Your task to perform on an android device: What's the weather going to be this weekend? Image 0: 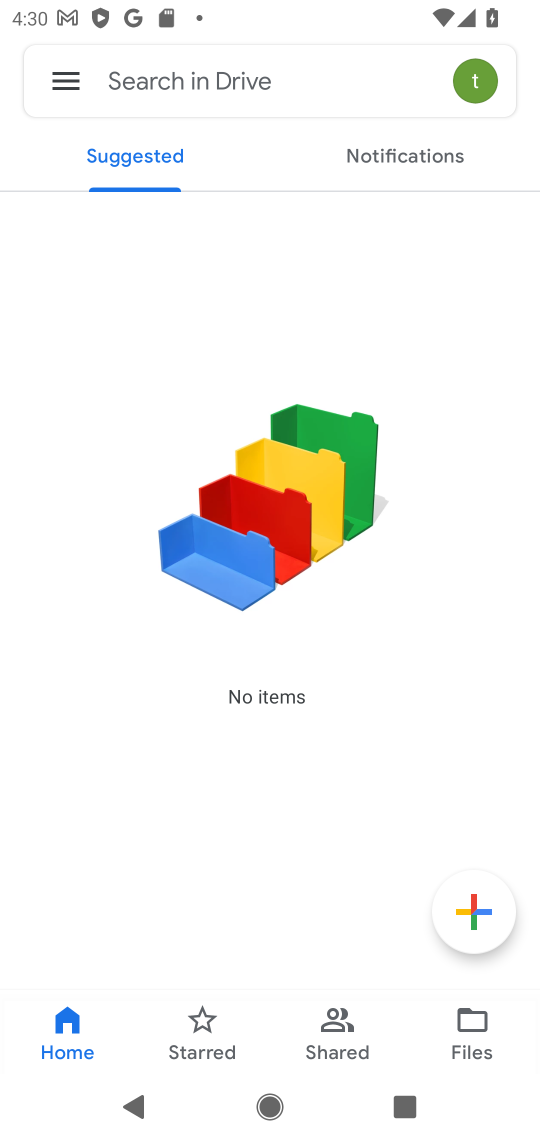
Step 0: press home button
Your task to perform on an android device: What's the weather going to be this weekend? Image 1: 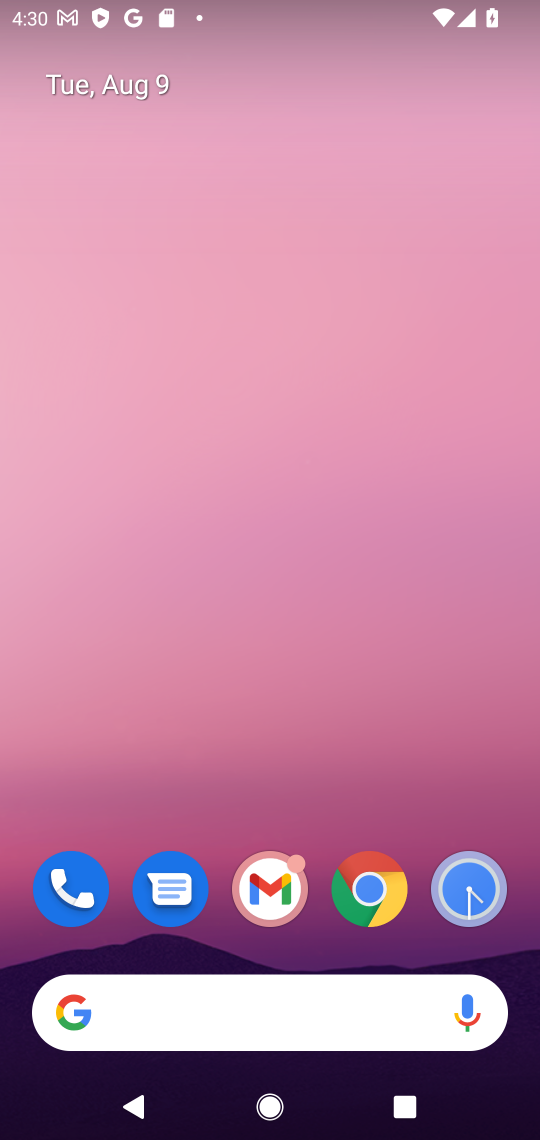
Step 1: click (200, 1013)
Your task to perform on an android device: What's the weather going to be this weekend? Image 2: 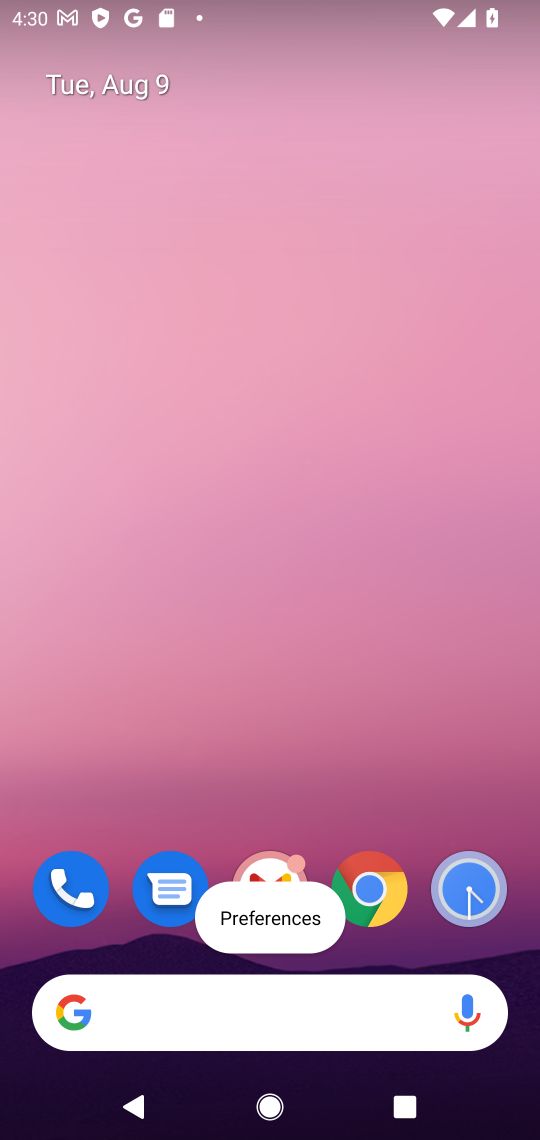
Step 2: click (204, 1021)
Your task to perform on an android device: What's the weather going to be this weekend? Image 3: 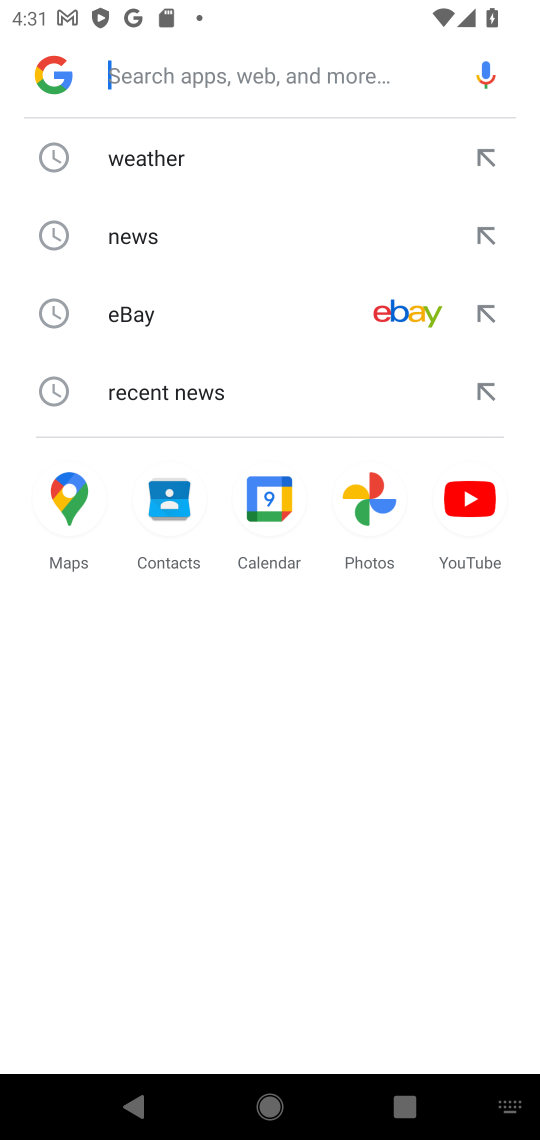
Step 3: click (176, 154)
Your task to perform on an android device: What's the weather going to be this weekend? Image 4: 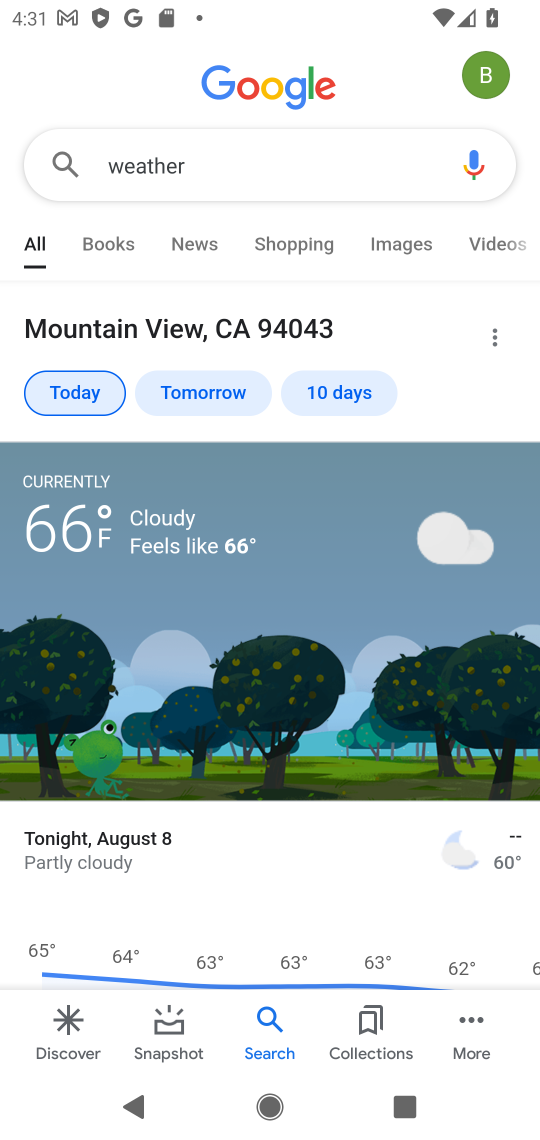
Step 4: click (325, 391)
Your task to perform on an android device: What's the weather going to be this weekend? Image 5: 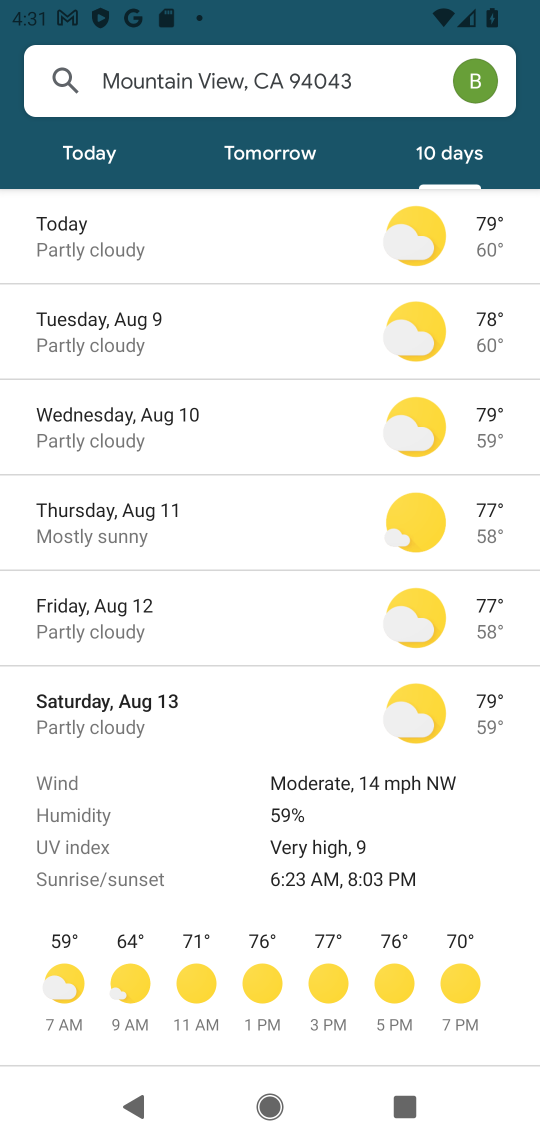
Step 5: task complete